Your task to perform on an android device: set default search engine in the chrome app Image 0: 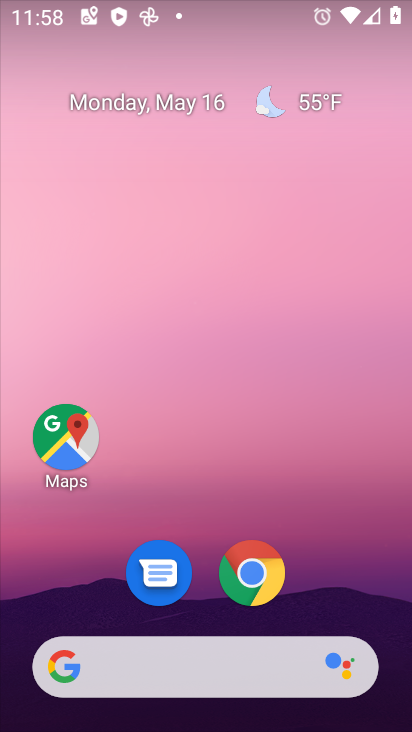
Step 0: click (251, 209)
Your task to perform on an android device: set default search engine in the chrome app Image 1: 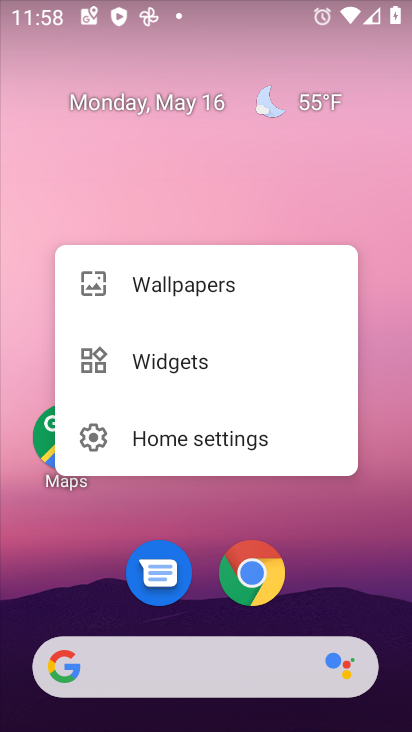
Step 1: click (346, 558)
Your task to perform on an android device: set default search engine in the chrome app Image 2: 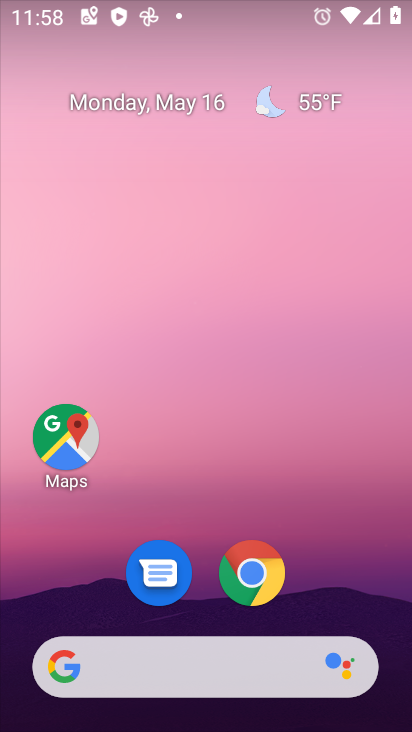
Step 2: drag from (276, 95) to (300, 350)
Your task to perform on an android device: set default search engine in the chrome app Image 3: 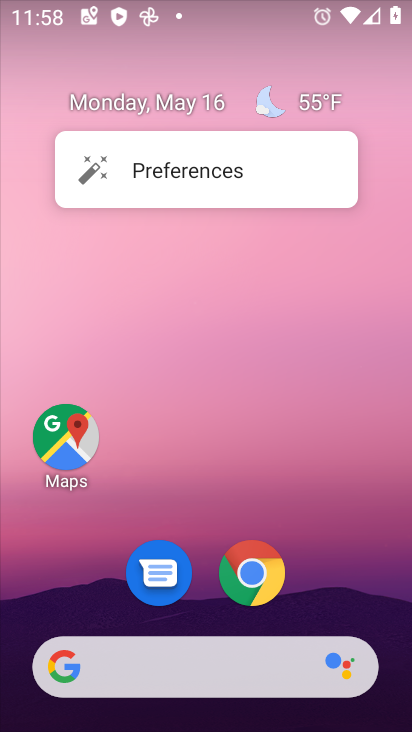
Step 3: click (300, 350)
Your task to perform on an android device: set default search engine in the chrome app Image 4: 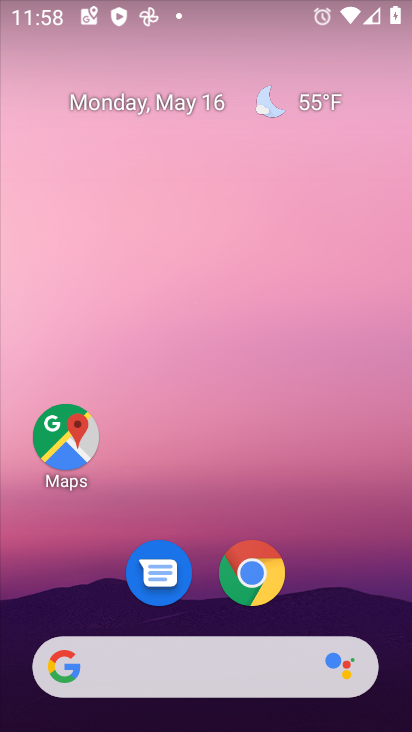
Step 4: click (265, 575)
Your task to perform on an android device: set default search engine in the chrome app Image 5: 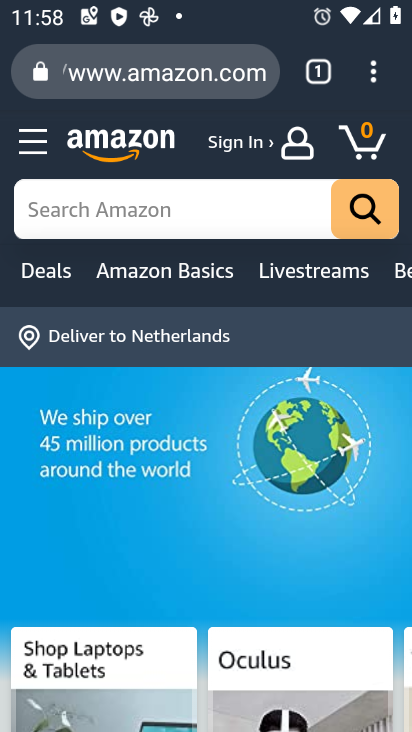
Step 5: click (384, 81)
Your task to perform on an android device: set default search engine in the chrome app Image 6: 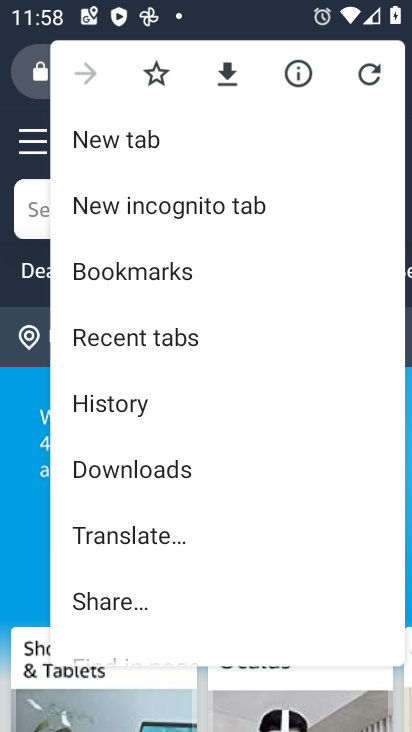
Step 6: drag from (254, 500) to (141, 194)
Your task to perform on an android device: set default search engine in the chrome app Image 7: 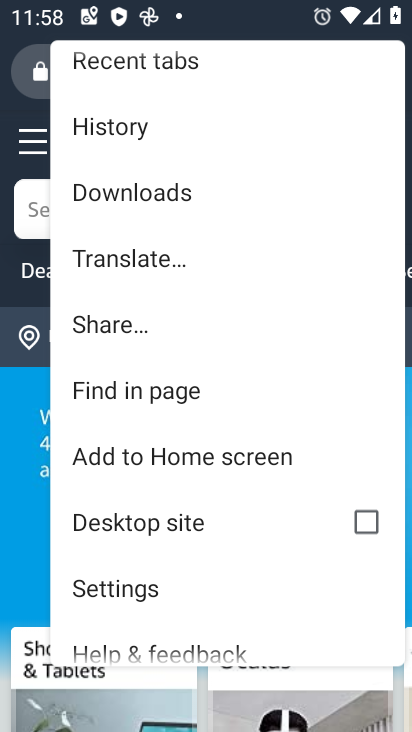
Step 7: click (166, 591)
Your task to perform on an android device: set default search engine in the chrome app Image 8: 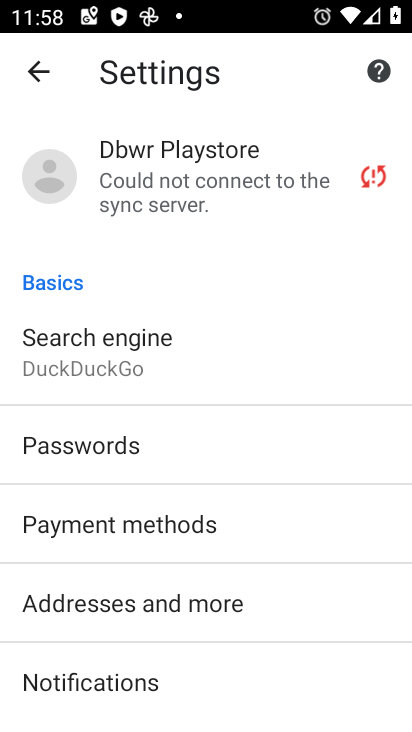
Step 8: click (242, 362)
Your task to perform on an android device: set default search engine in the chrome app Image 9: 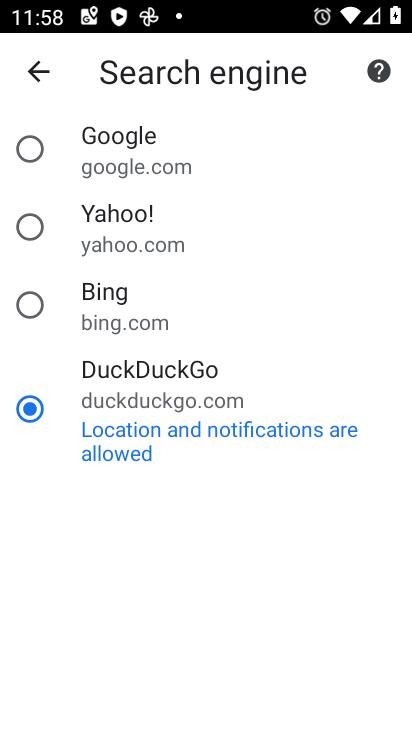
Step 9: click (111, 325)
Your task to perform on an android device: set default search engine in the chrome app Image 10: 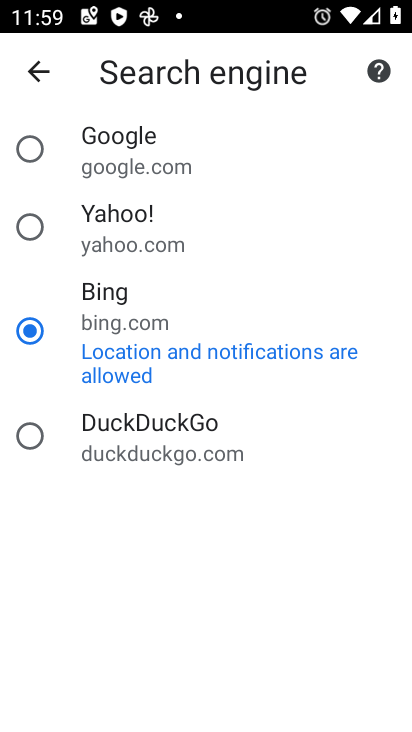
Step 10: task complete